Your task to perform on an android device: toggle notification dots Image 0: 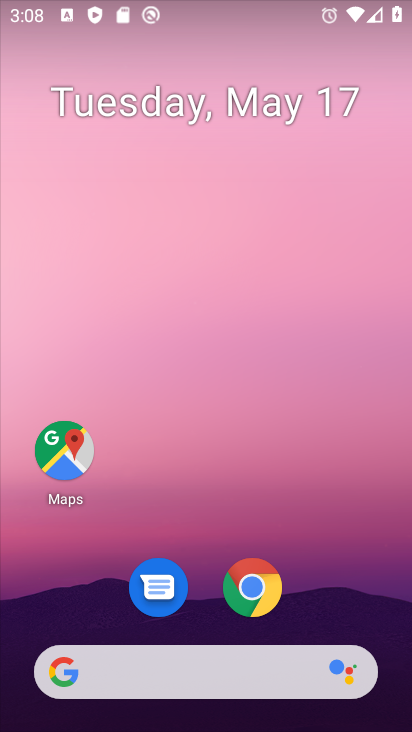
Step 0: drag from (214, 546) to (288, 99)
Your task to perform on an android device: toggle notification dots Image 1: 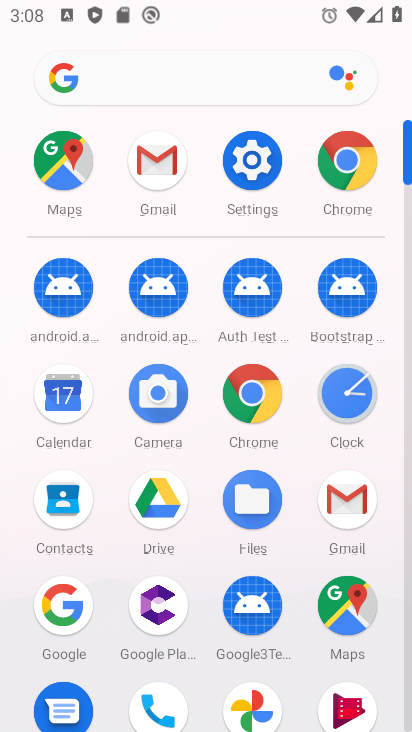
Step 1: click (247, 165)
Your task to perform on an android device: toggle notification dots Image 2: 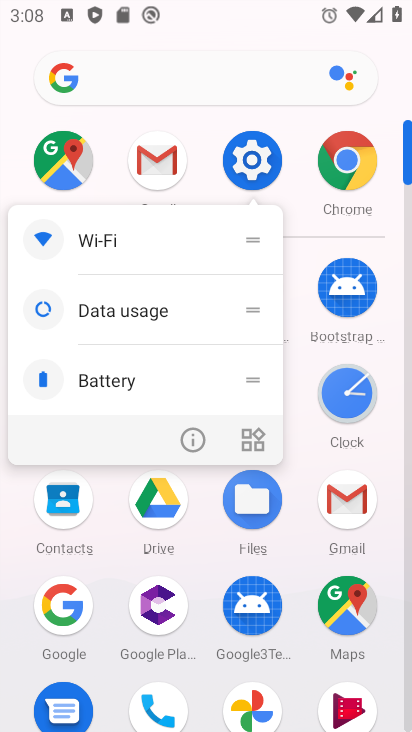
Step 2: click (194, 424)
Your task to perform on an android device: toggle notification dots Image 3: 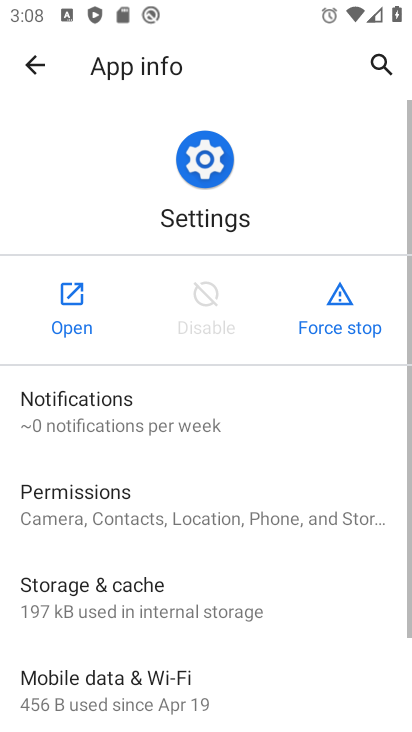
Step 3: click (85, 300)
Your task to perform on an android device: toggle notification dots Image 4: 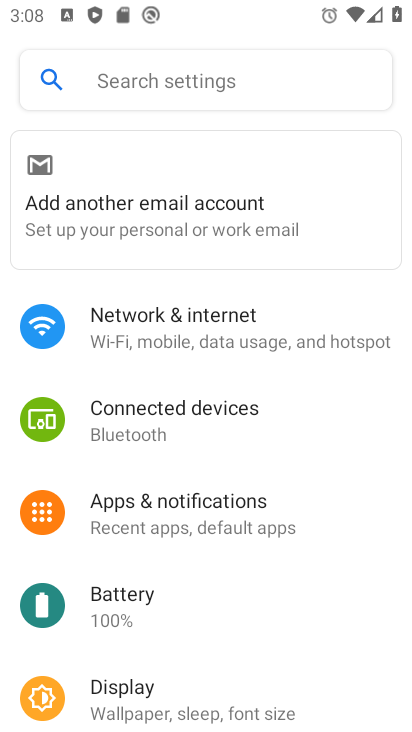
Step 4: click (194, 503)
Your task to perform on an android device: toggle notification dots Image 5: 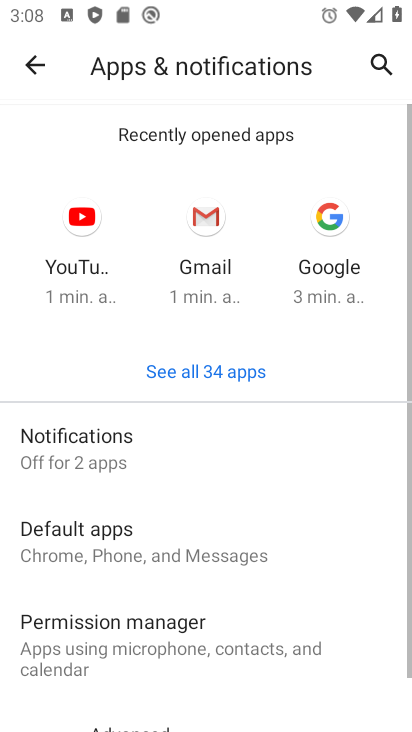
Step 5: drag from (213, 552) to (304, 227)
Your task to perform on an android device: toggle notification dots Image 6: 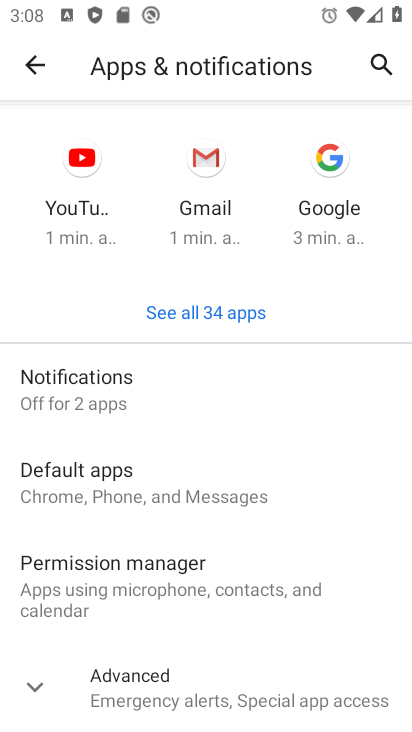
Step 6: click (137, 381)
Your task to perform on an android device: toggle notification dots Image 7: 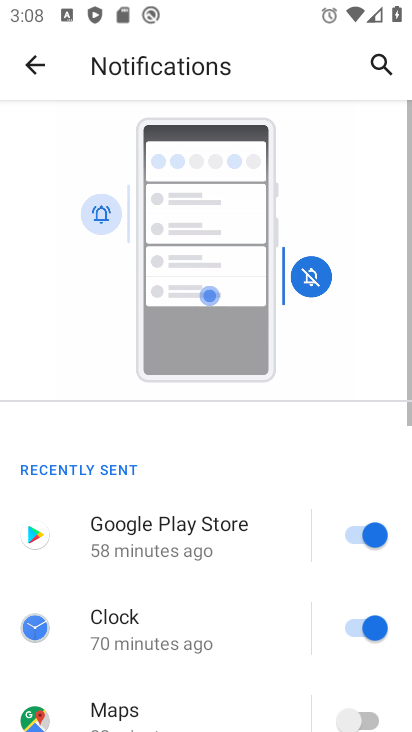
Step 7: drag from (228, 482) to (386, 0)
Your task to perform on an android device: toggle notification dots Image 8: 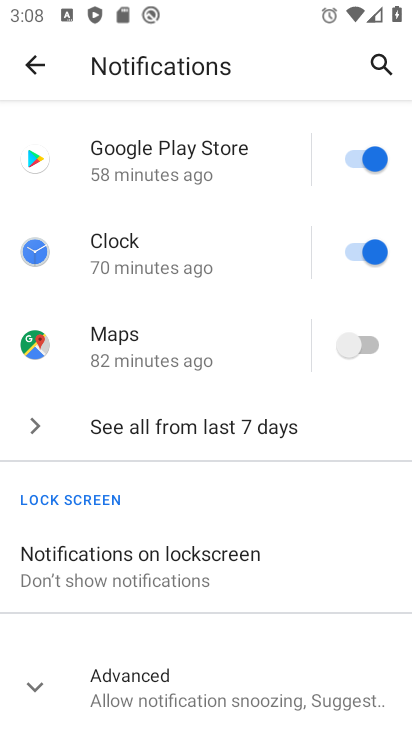
Step 8: click (140, 680)
Your task to perform on an android device: toggle notification dots Image 9: 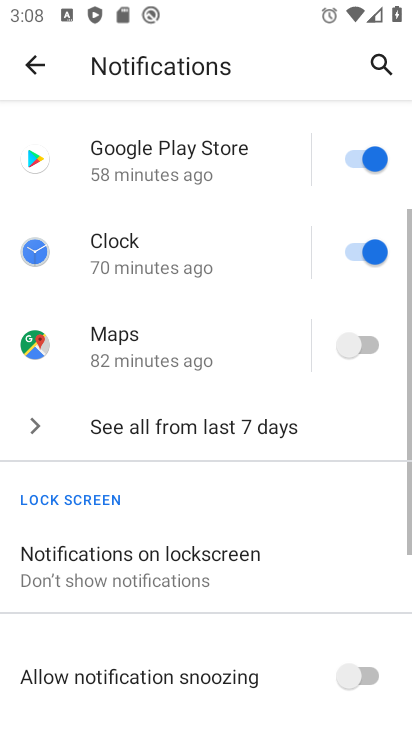
Step 9: drag from (220, 646) to (288, 82)
Your task to perform on an android device: toggle notification dots Image 10: 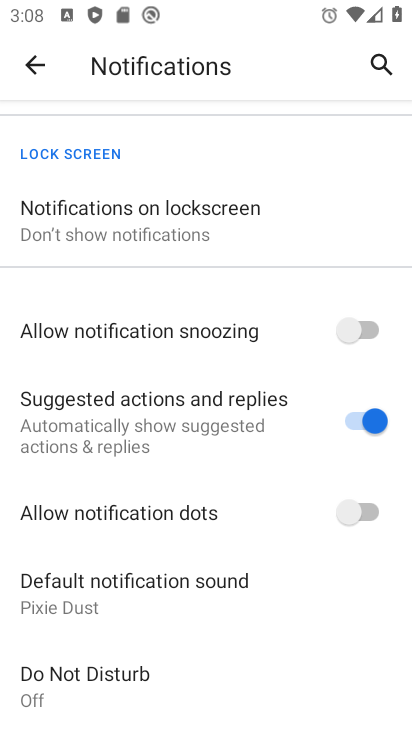
Step 10: click (349, 516)
Your task to perform on an android device: toggle notification dots Image 11: 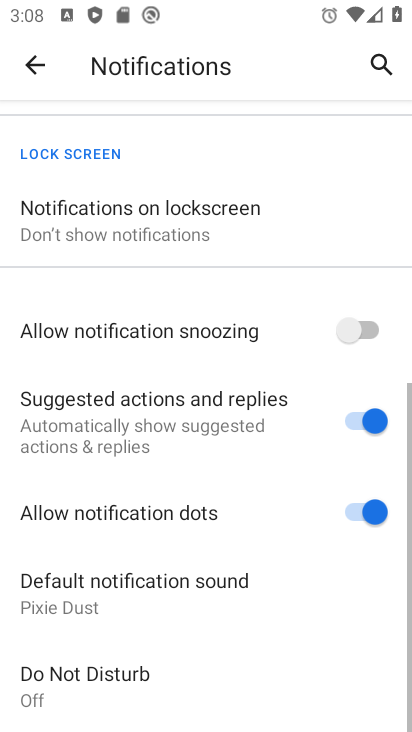
Step 11: task complete